Your task to perform on an android device: Show me popular videos on Youtube Image 0: 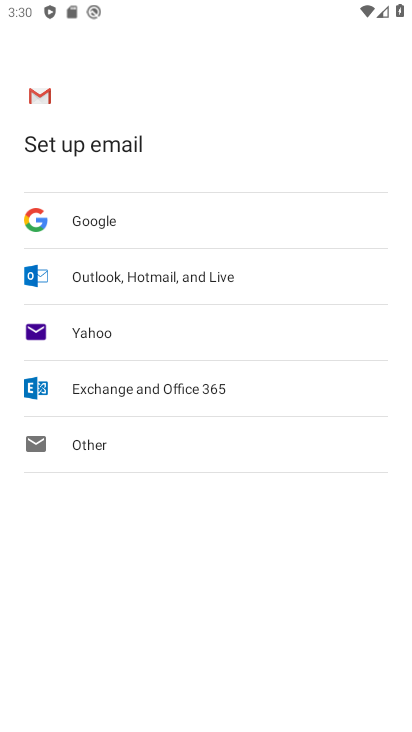
Step 0: press home button
Your task to perform on an android device: Show me popular videos on Youtube Image 1: 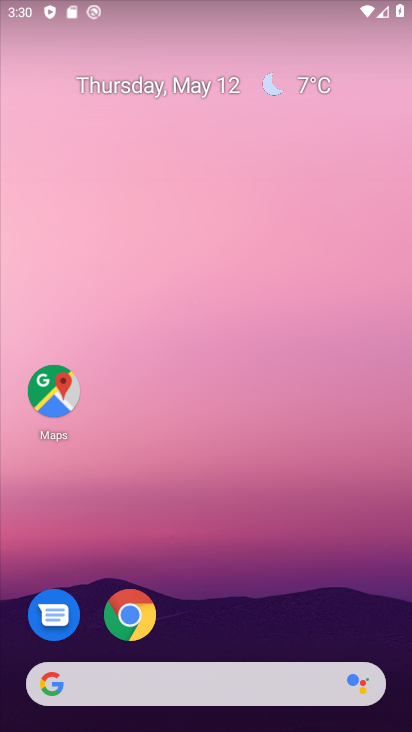
Step 1: drag from (242, 600) to (232, 66)
Your task to perform on an android device: Show me popular videos on Youtube Image 2: 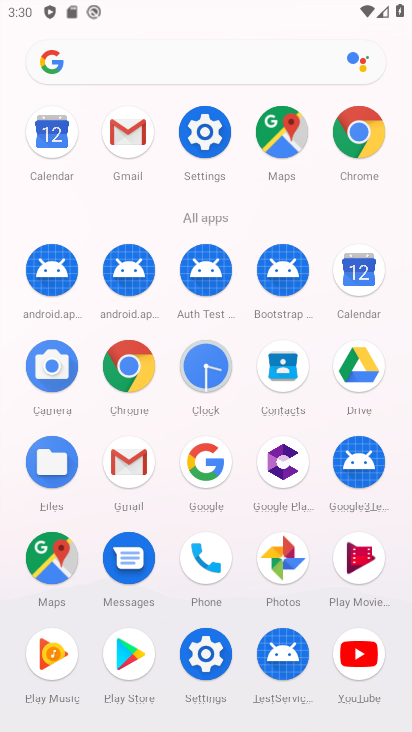
Step 2: drag from (232, 307) to (247, 3)
Your task to perform on an android device: Show me popular videos on Youtube Image 3: 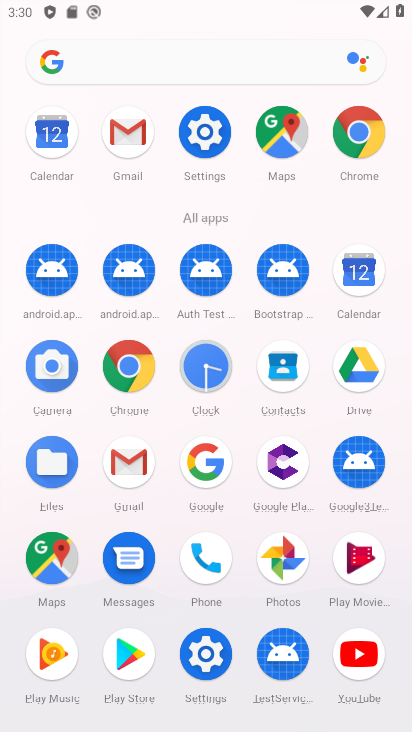
Step 3: click (358, 657)
Your task to perform on an android device: Show me popular videos on Youtube Image 4: 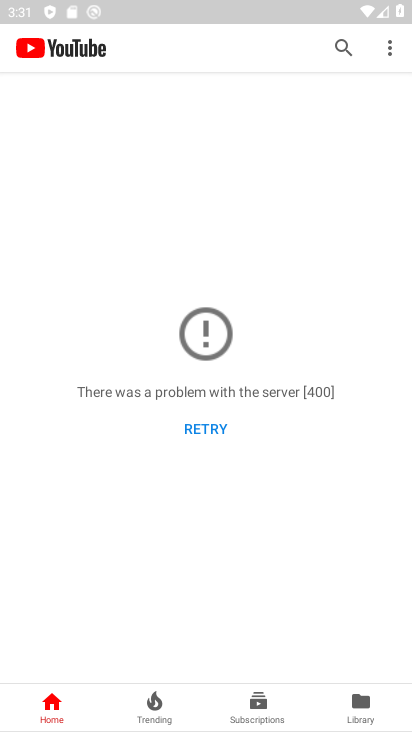
Step 4: click (367, 705)
Your task to perform on an android device: Show me popular videos on Youtube Image 5: 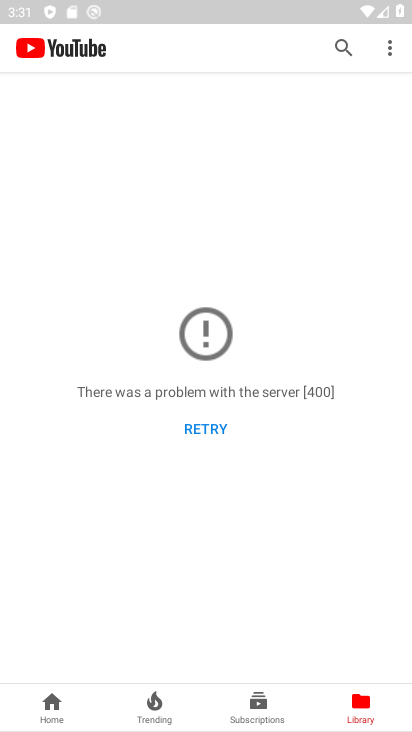
Step 5: task complete